Your task to perform on an android device: When is my next appointment? Image 0: 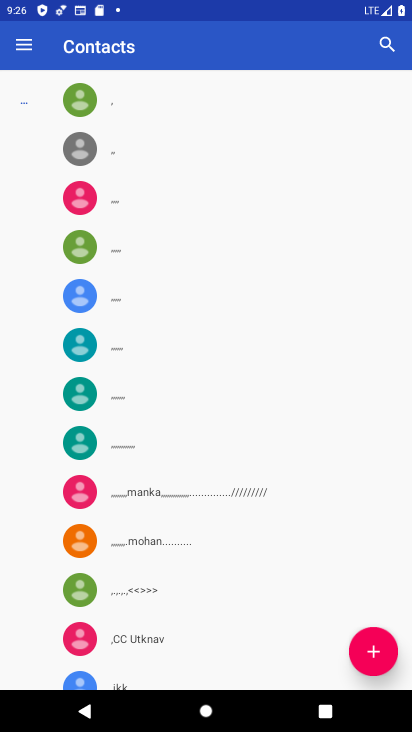
Step 0: press home button
Your task to perform on an android device: When is my next appointment? Image 1: 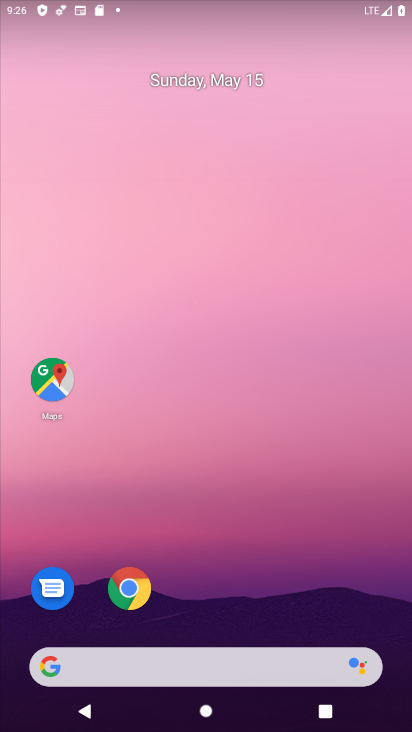
Step 1: click (223, 83)
Your task to perform on an android device: When is my next appointment? Image 2: 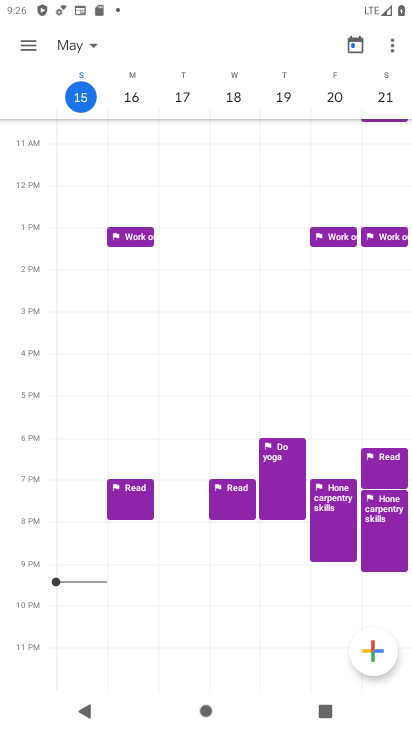
Step 2: click (28, 47)
Your task to perform on an android device: When is my next appointment? Image 3: 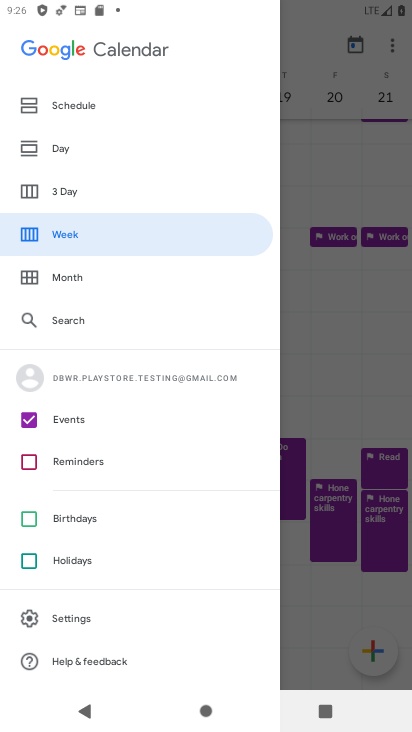
Step 3: click (57, 109)
Your task to perform on an android device: When is my next appointment? Image 4: 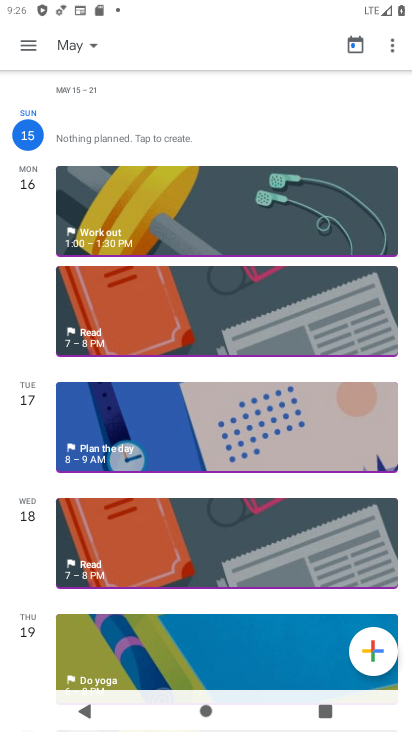
Step 4: task complete